Your task to perform on an android device: check the backup settings in the google photos Image 0: 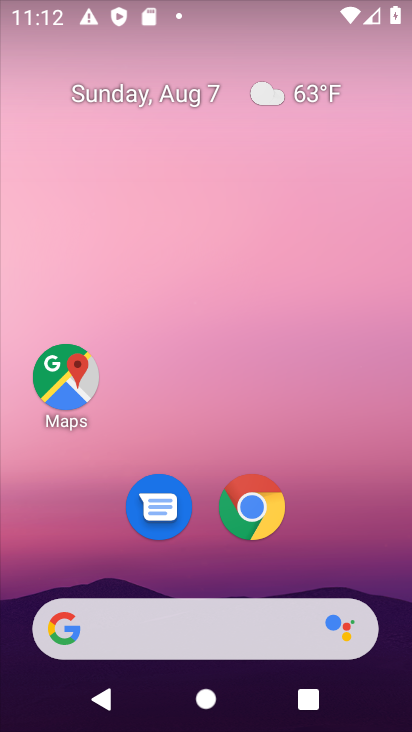
Step 0: drag from (357, 562) to (311, 178)
Your task to perform on an android device: check the backup settings in the google photos Image 1: 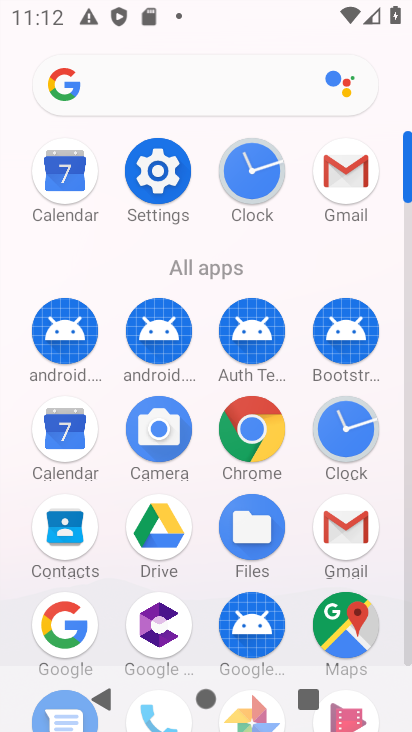
Step 1: drag from (291, 571) to (257, 484)
Your task to perform on an android device: check the backup settings in the google photos Image 2: 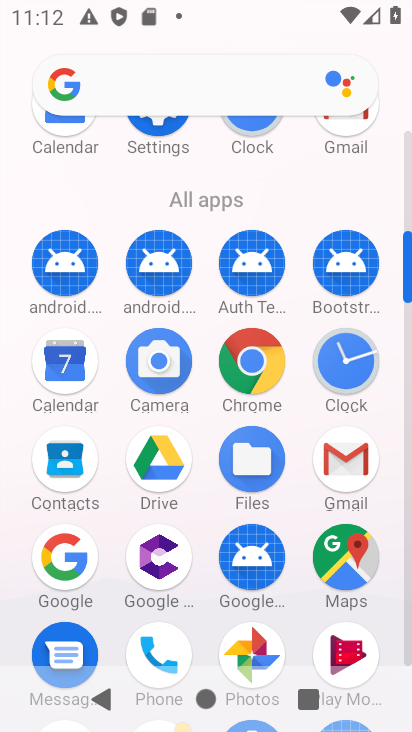
Step 2: click (254, 643)
Your task to perform on an android device: check the backup settings in the google photos Image 3: 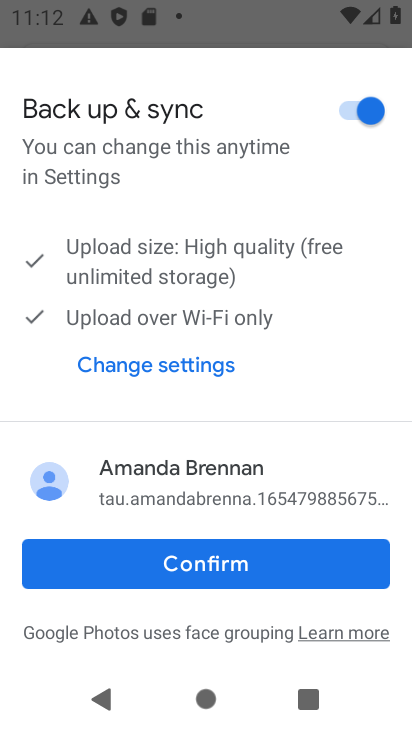
Step 3: click (216, 578)
Your task to perform on an android device: check the backup settings in the google photos Image 4: 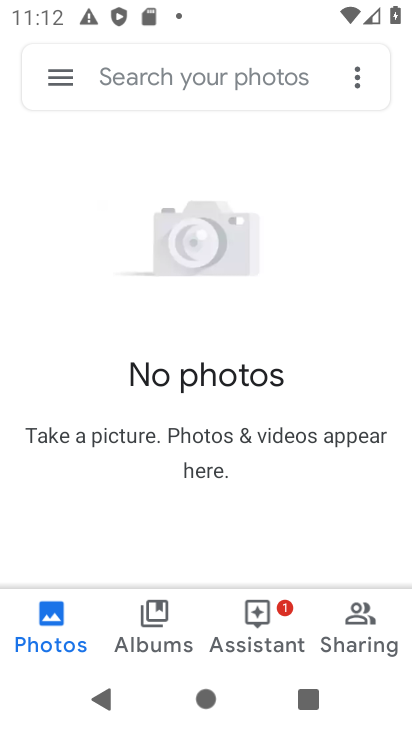
Step 4: click (53, 89)
Your task to perform on an android device: check the backup settings in the google photos Image 5: 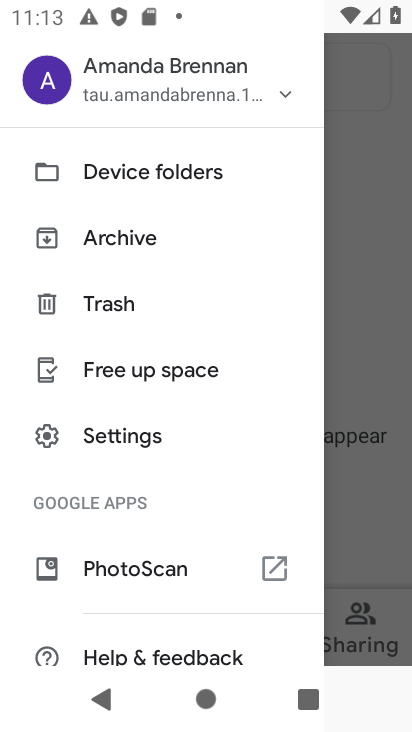
Step 5: click (148, 427)
Your task to perform on an android device: check the backup settings in the google photos Image 6: 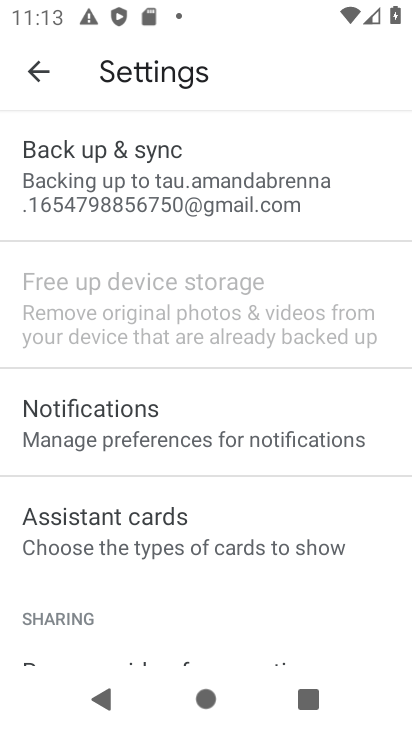
Step 6: click (94, 187)
Your task to perform on an android device: check the backup settings in the google photos Image 7: 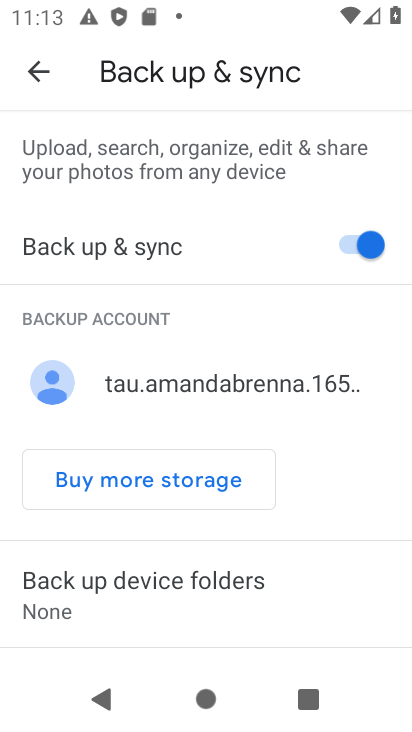
Step 7: task complete